Your task to perform on an android device: turn off javascript in the chrome app Image 0: 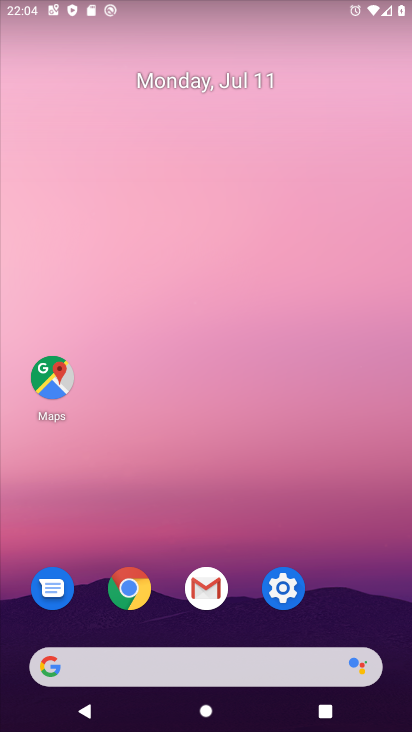
Step 0: click (129, 577)
Your task to perform on an android device: turn off javascript in the chrome app Image 1: 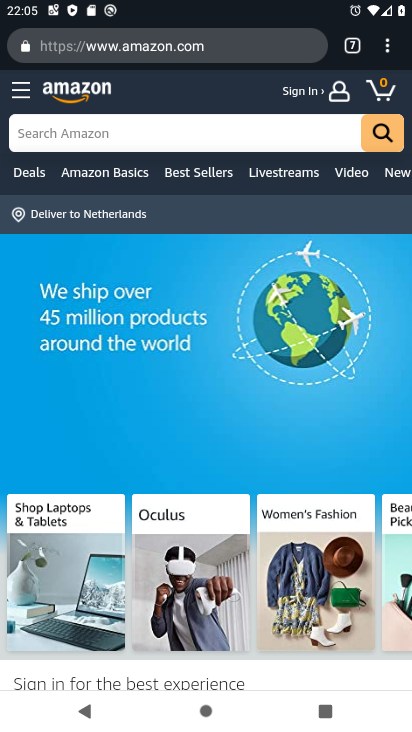
Step 1: click (381, 62)
Your task to perform on an android device: turn off javascript in the chrome app Image 2: 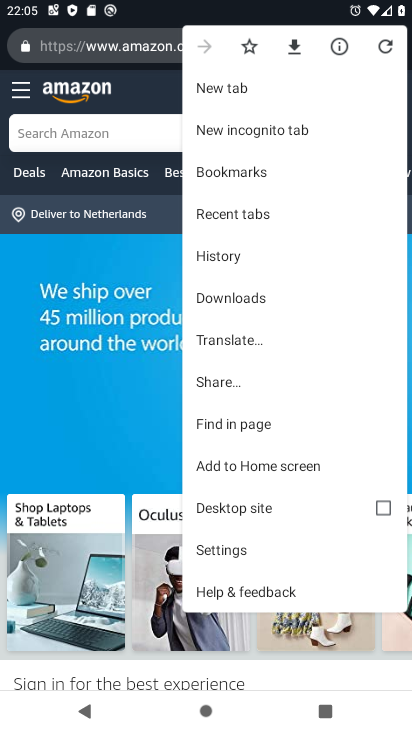
Step 2: click (243, 550)
Your task to perform on an android device: turn off javascript in the chrome app Image 3: 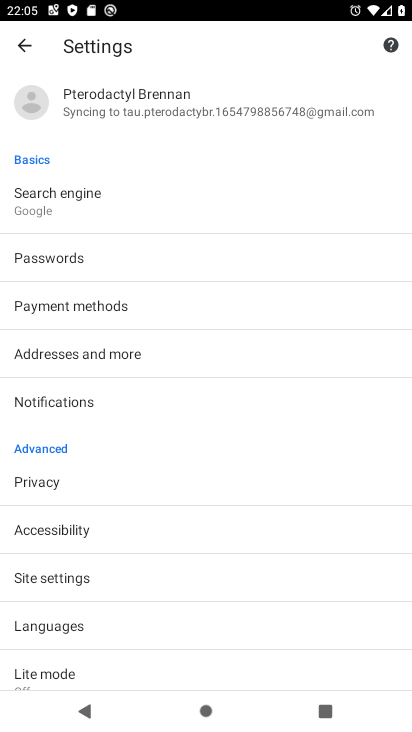
Step 3: click (80, 588)
Your task to perform on an android device: turn off javascript in the chrome app Image 4: 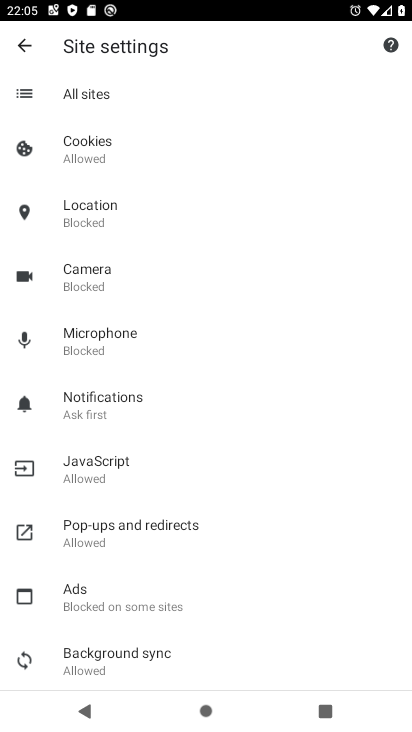
Step 4: click (88, 463)
Your task to perform on an android device: turn off javascript in the chrome app Image 5: 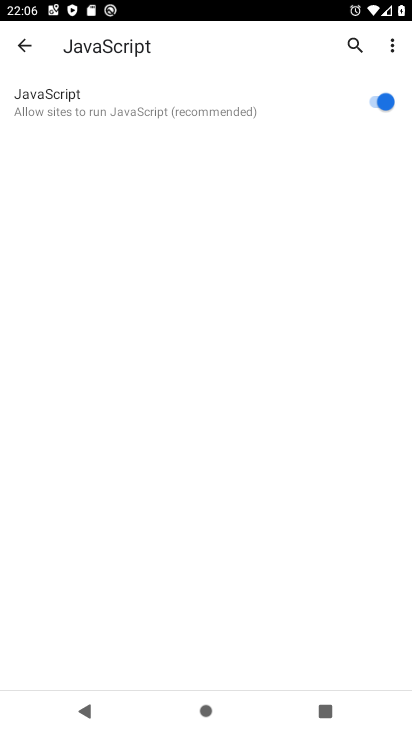
Step 5: task complete